Your task to perform on an android device: Go to Google Image 0: 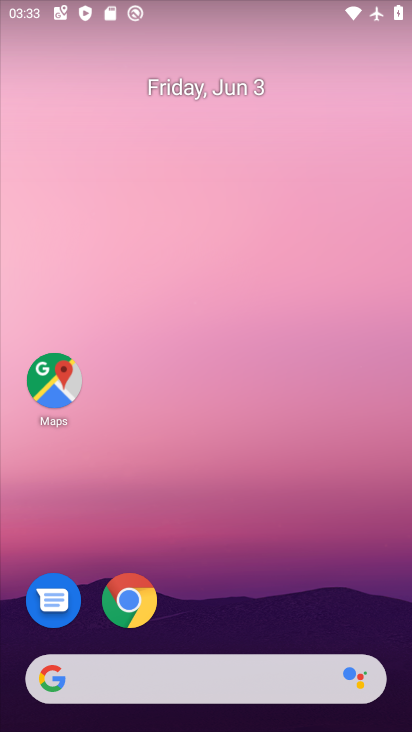
Step 0: click (98, 692)
Your task to perform on an android device: Go to Google Image 1: 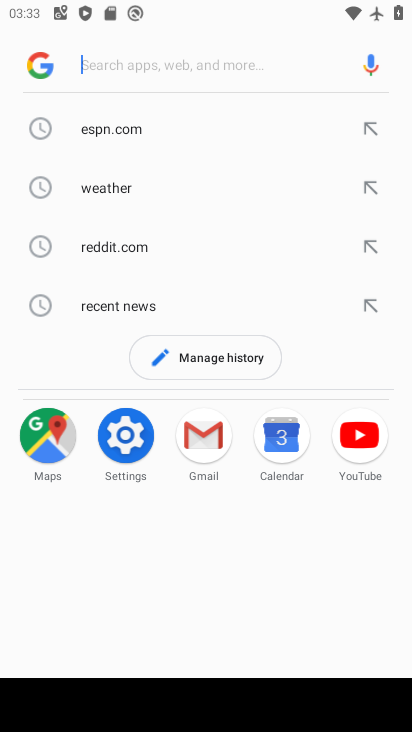
Step 1: click (34, 64)
Your task to perform on an android device: Go to Google Image 2: 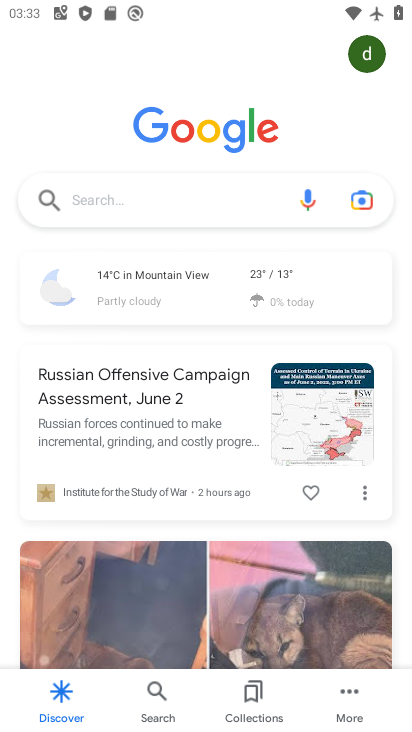
Step 2: task complete